Your task to perform on an android device: turn off translation in the chrome app Image 0: 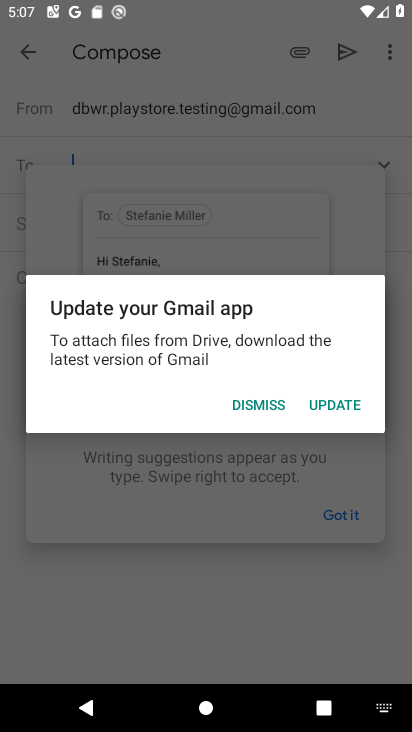
Step 0: press home button
Your task to perform on an android device: turn off translation in the chrome app Image 1: 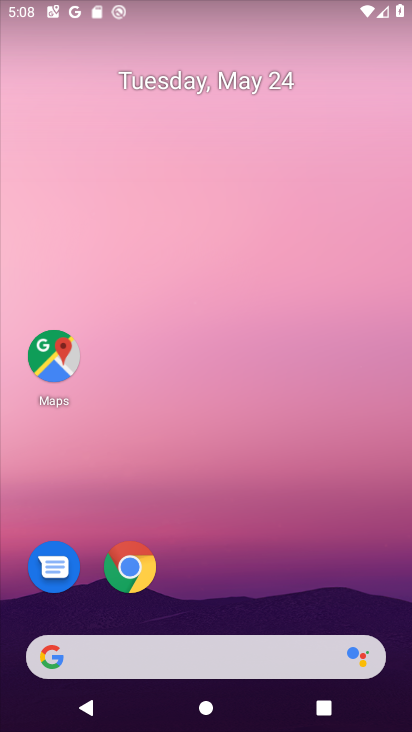
Step 1: click (130, 564)
Your task to perform on an android device: turn off translation in the chrome app Image 2: 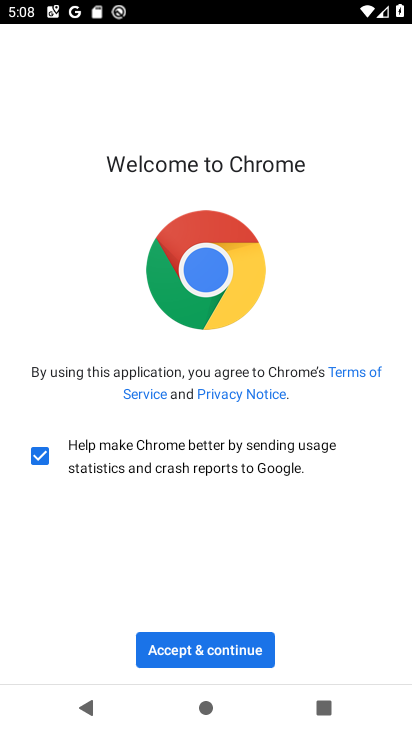
Step 2: click (190, 651)
Your task to perform on an android device: turn off translation in the chrome app Image 3: 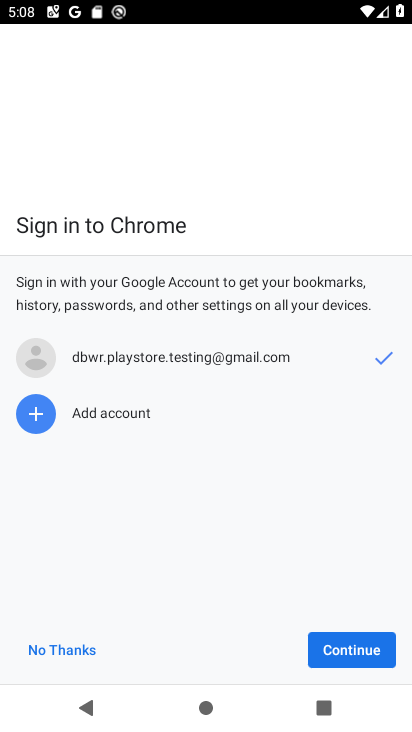
Step 3: click (351, 650)
Your task to perform on an android device: turn off translation in the chrome app Image 4: 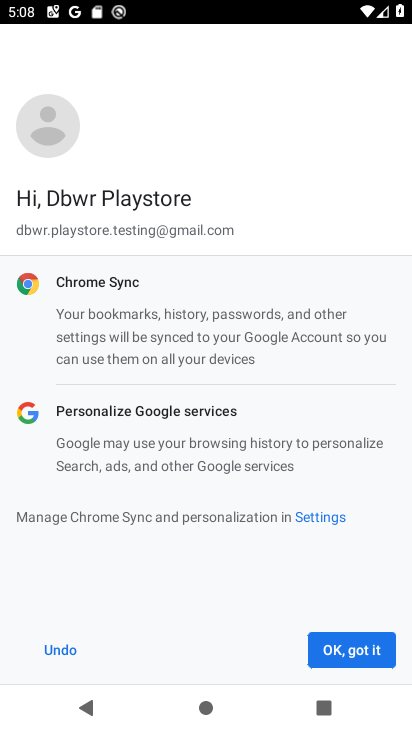
Step 4: click (351, 650)
Your task to perform on an android device: turn off translation in the chrome app Image 5: 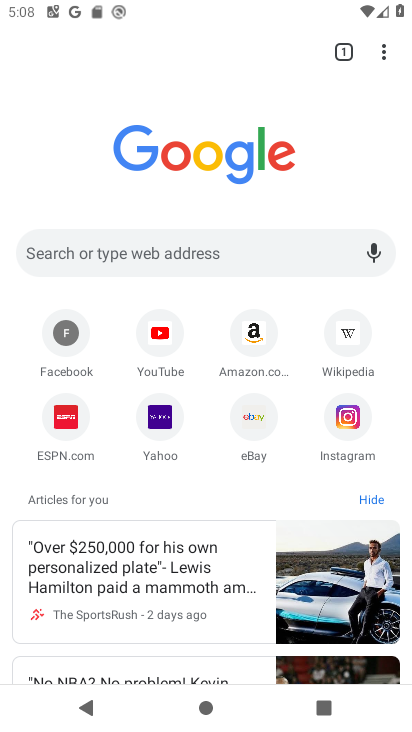
Step 5: click (385, 53)
Your task to perform on an android device: turn off translation in the chrome app Image 6: 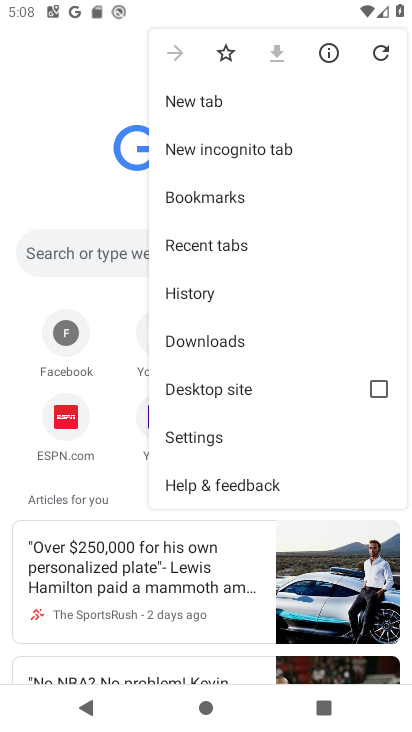
Step 6: drag from (224, 368) to (260, 291)
Your task to perform on an android device: turn off translation in the chrome app Image 7: 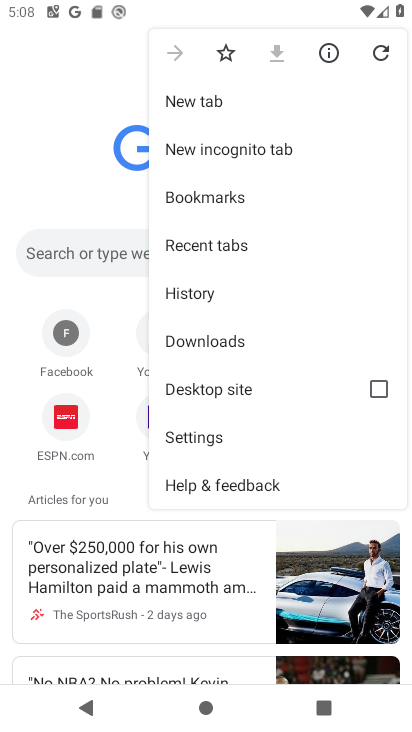
Step 7: click (193, 432)
Your task to perform on an android device: turn off translation in the chrome app Image 8: 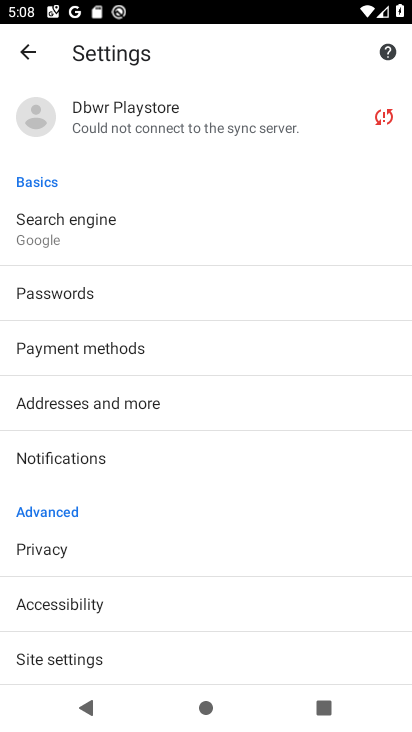
Step 8: drag from (119, 521) to (179, 420)
Your task to perform on an android device: turn off translation in the chrome app Image 9: 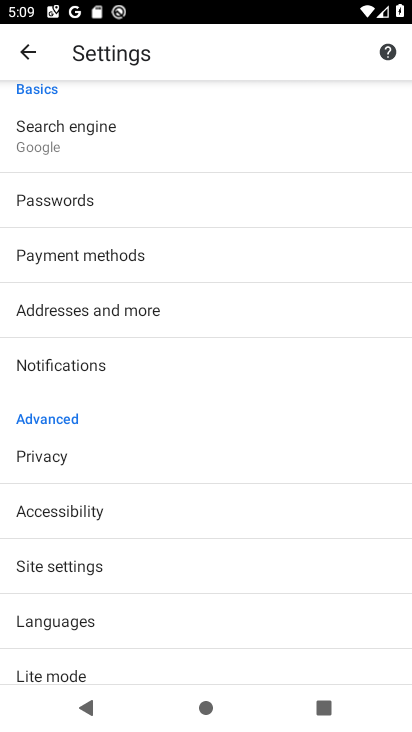
Step 9: click (65, 626)
Your task to perform on an android device: turn off translation in the chrome app Image 10: 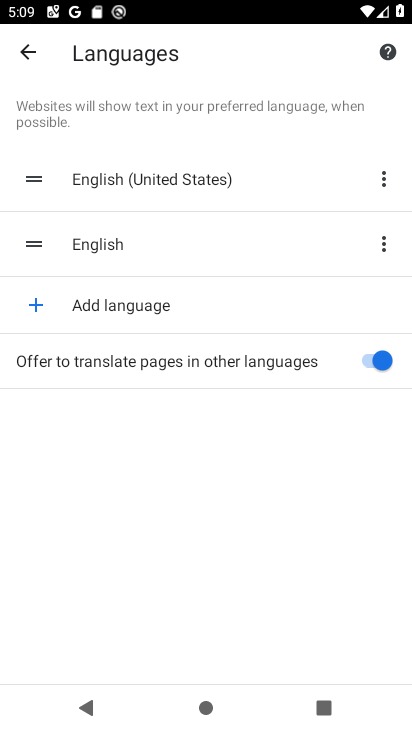
Step 10: click (382, 365)
Your task to perform on an android device: turn off translation in the chrome app Image 11: 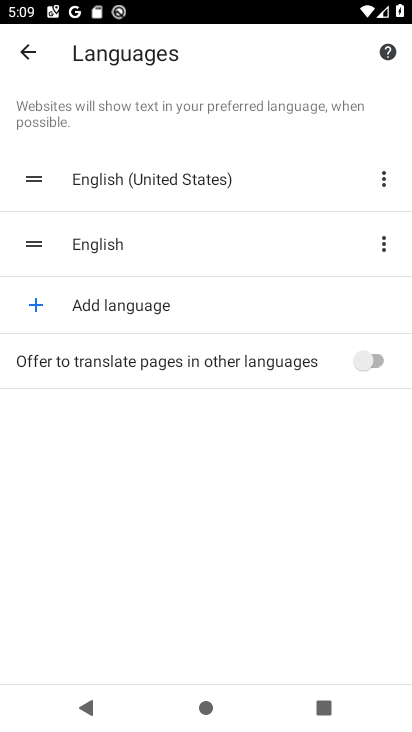
Step 11: task complete